Your task to perform on an android device: choose inbox layout in the gmail app Image 0: 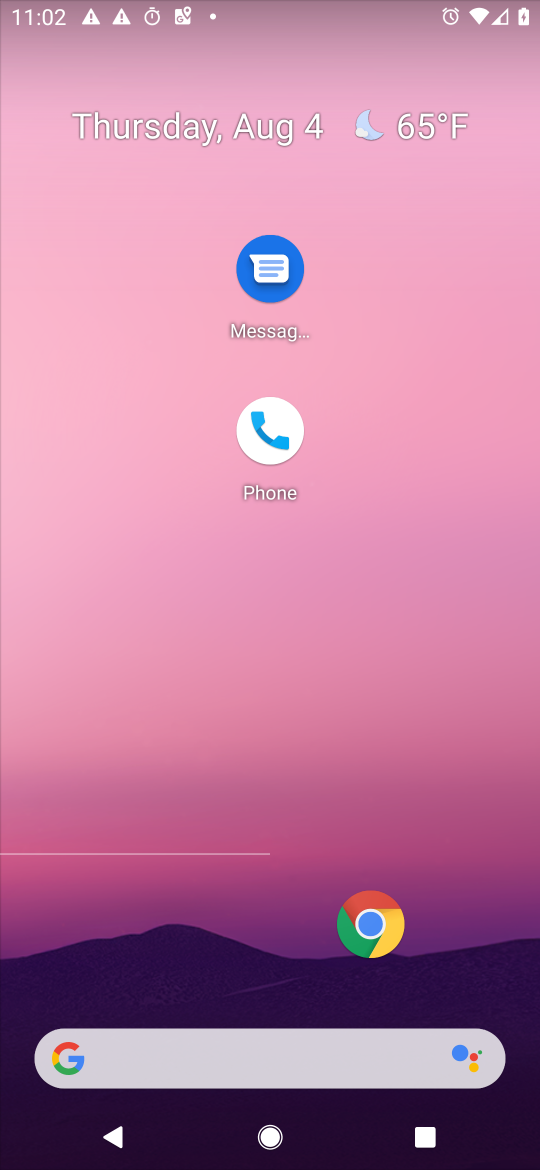
Step 0: drag from (216, 975) to (326, 232)
Your task to perform on an android device: choose inbox layout in the gmail app Image 1: 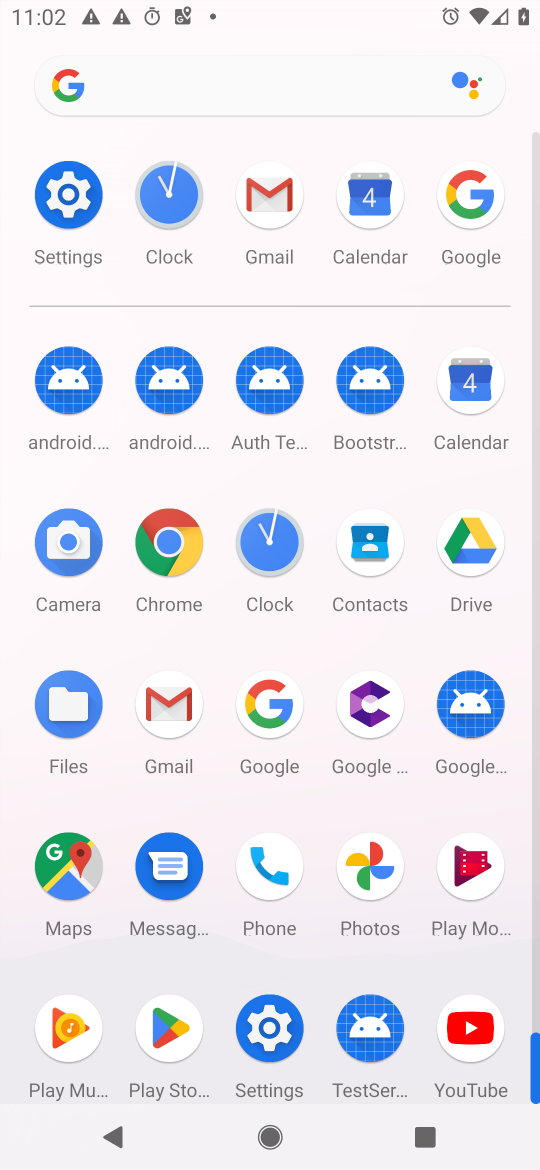
Step 1: drag from (317, 895) to (307, 308)
Your task to perform on an android device: choose inbox layout in the gmail app Image 2: 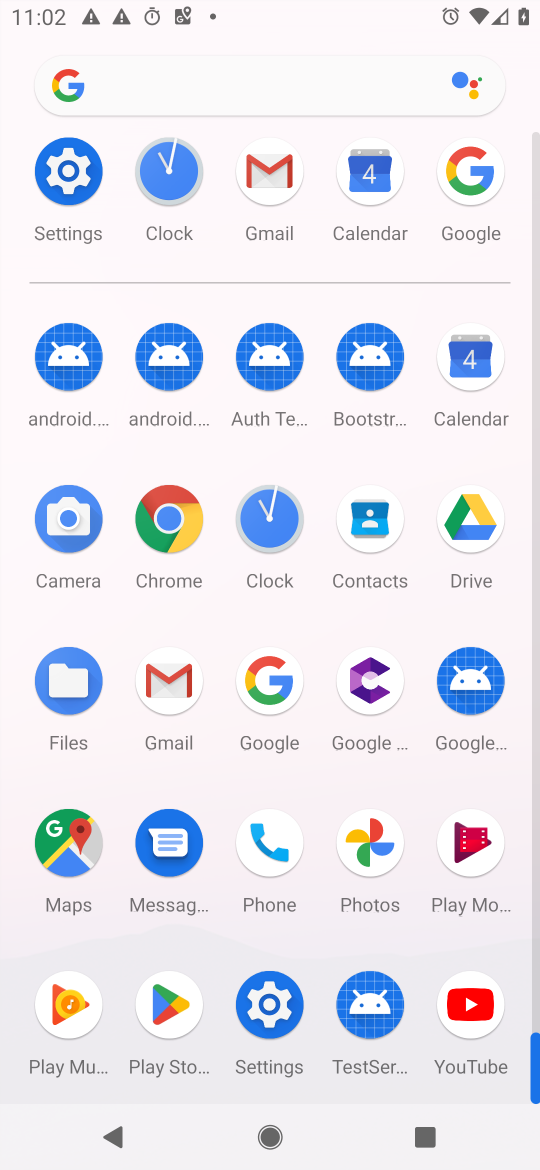
Step 2: click (181, 667)
Your task to perform on an android device: choose inbox layout in the gmail app Image 3: 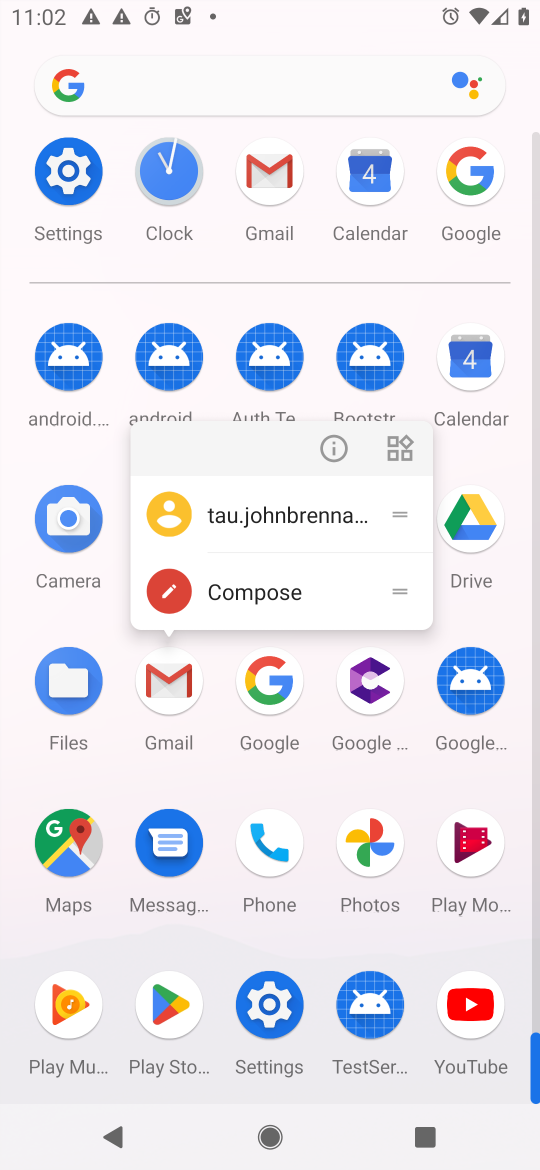
Step 3: click (327, 447)
Your task to perform on an android device: choose inbox layout in the gmail app Image 4: 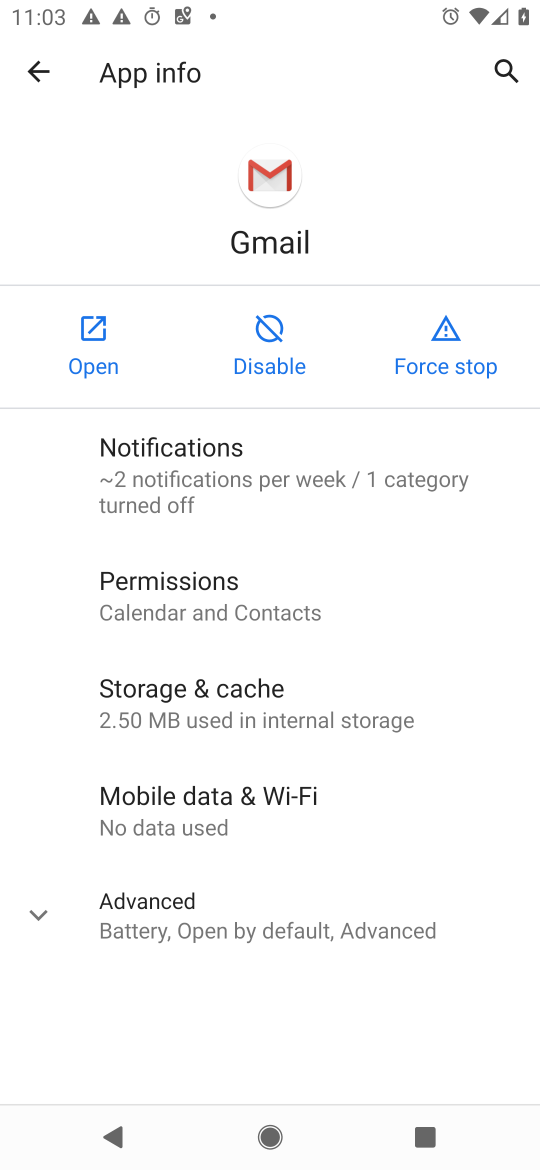
Step 4: click (80, 332)
Your task to perform on an android device: choose inbox layout in the gmail app Image 5: 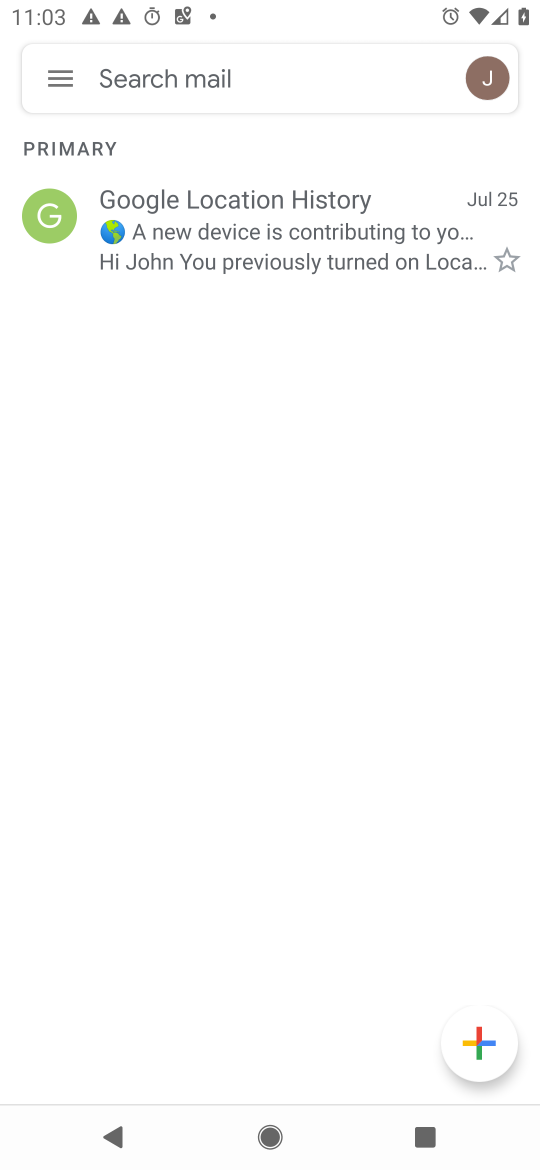
Step 5: click (36, 82)
Your task to perform on an android device: choose inbox layout in the gmail app Image 6: 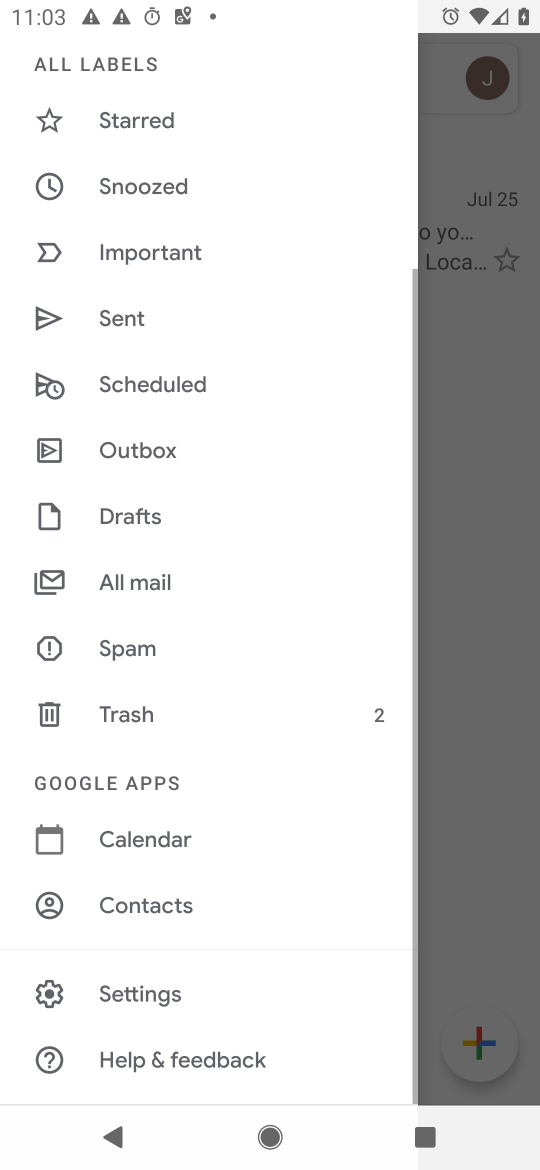
Step 6: drag from (156, 245) to (193, 1005)
Your task to perform on an android device: choose inbox layout in the gmail app Image 7: 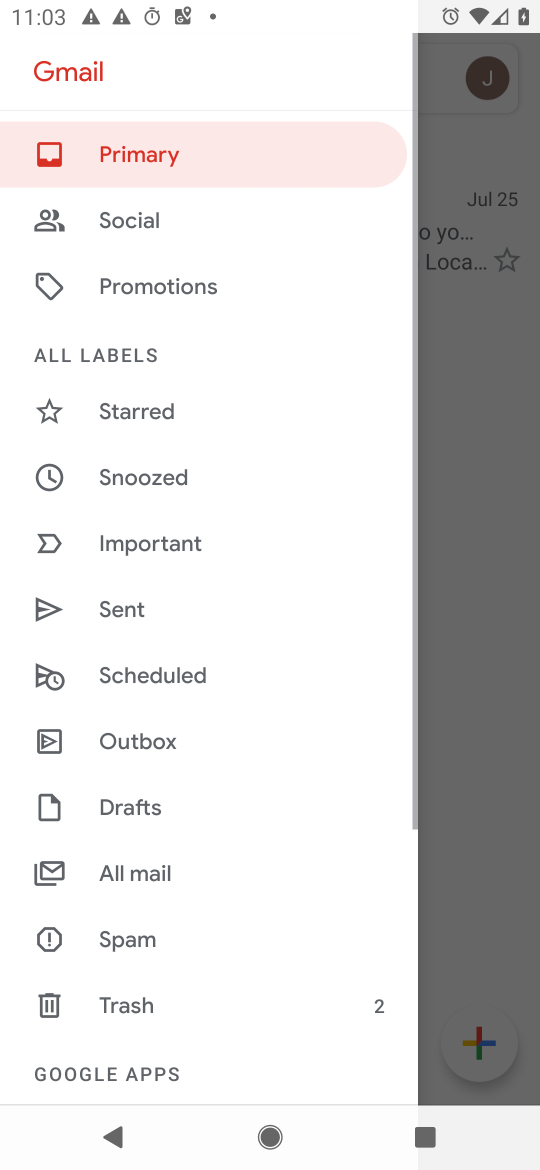
Step 7: click (165, 133)
Your task to perform on an android device: choose inbox layout in the gmail app Image 8: 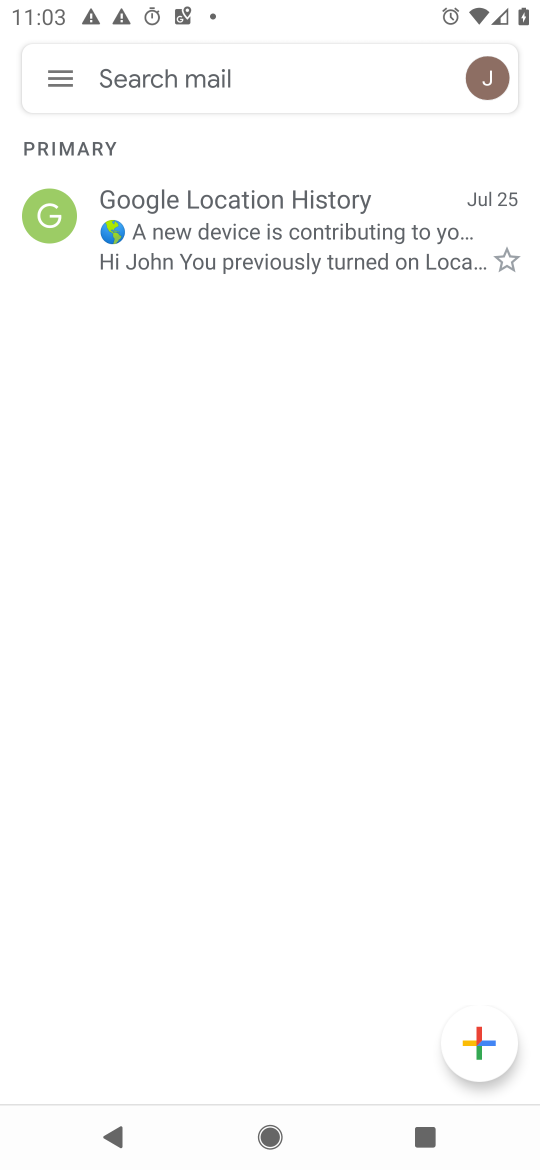
Step 8: click (51, 86)
Your task to perform on an android device: choose inbox layout in the gmail app Image 9: 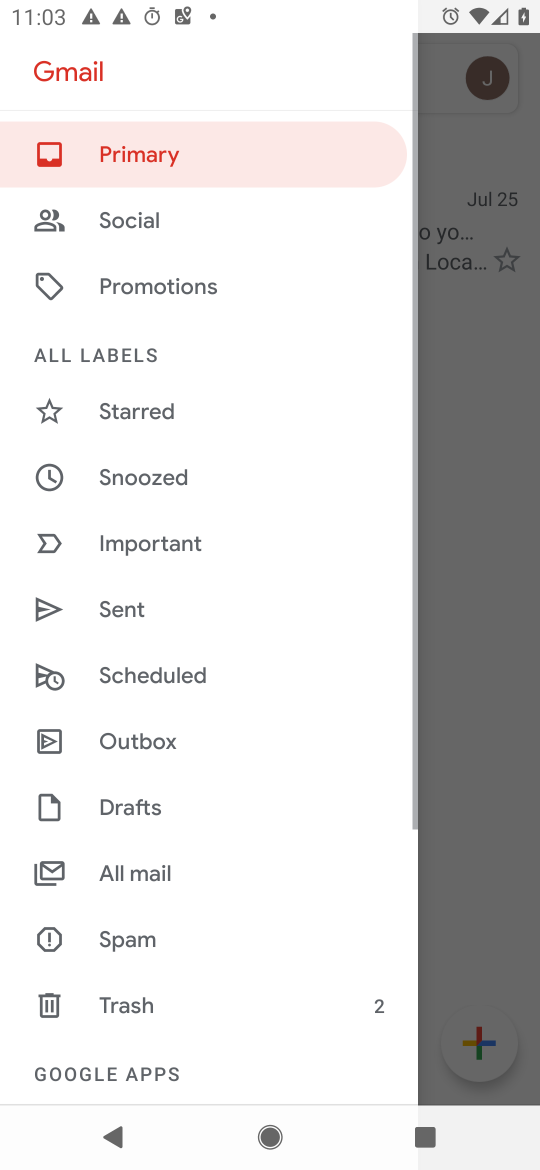
Step 9: click (194, 170)
Your task to perform on an android device: choose inbox layout in the gmail app Image 10: 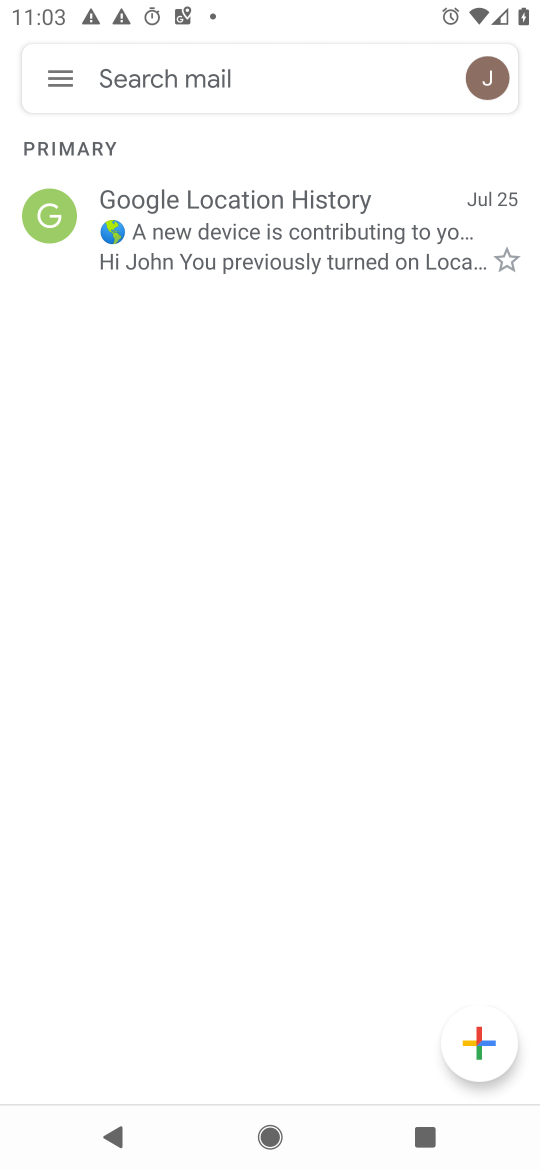
Step 10: task complete